Your task to perform on an android device: make emails show in primary in the gmail app Image 0: 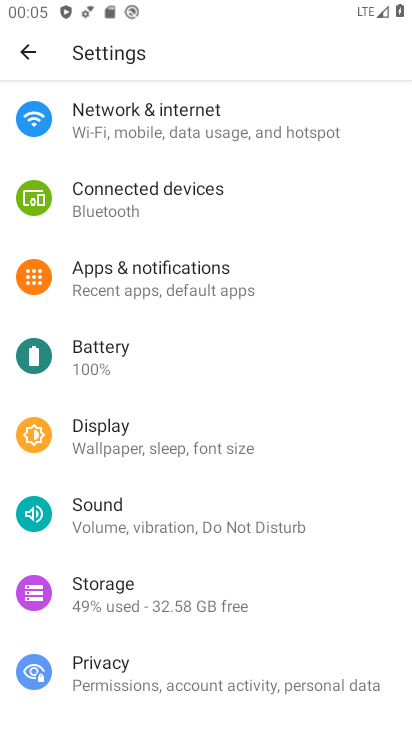
Step 0: press back button
Your task to perform on an android device: make emails show in primary in the gmail app Image 1: 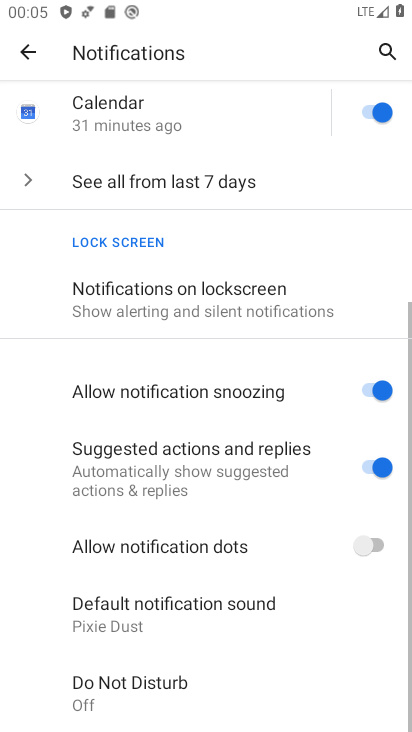
Step 1: press back button
Your task to perform on an android device: make emails show in primary in the gmail app Image 2: 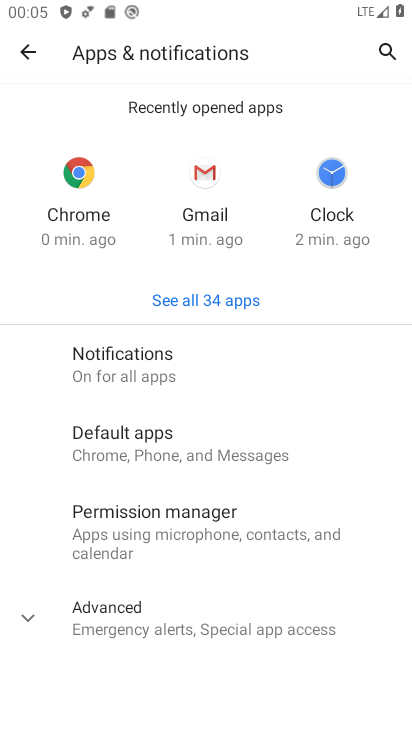
Step 2: press back button
Your task to perform on an android device: make emails show in primary in the gmail app Image 3: 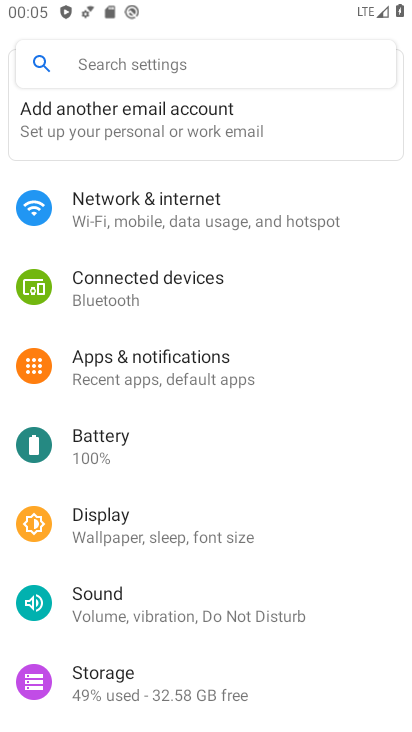
Step 3: press back button
Your task to perform on an android device: make emails show in primary in the gmail app Image 4: 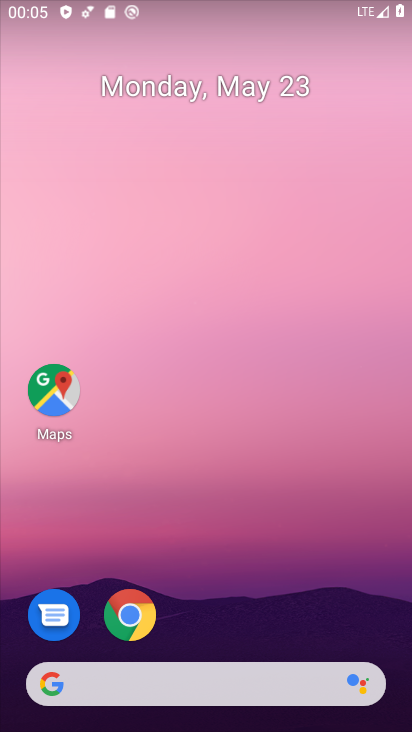
Step 4: drag from (248, 606) to (318, 110)
Your task to perform on an android device: make emails show in primary in the gmail app Image 5: 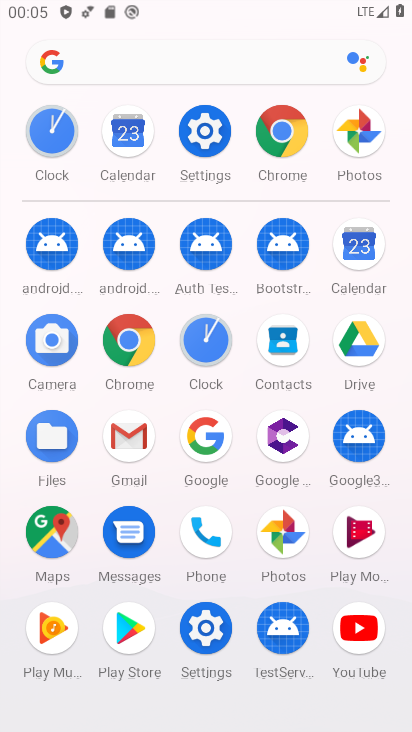
Step 5: click (134, 434)
Your task to perform on an android device: make emails show in primary in the gmail app Image 6: 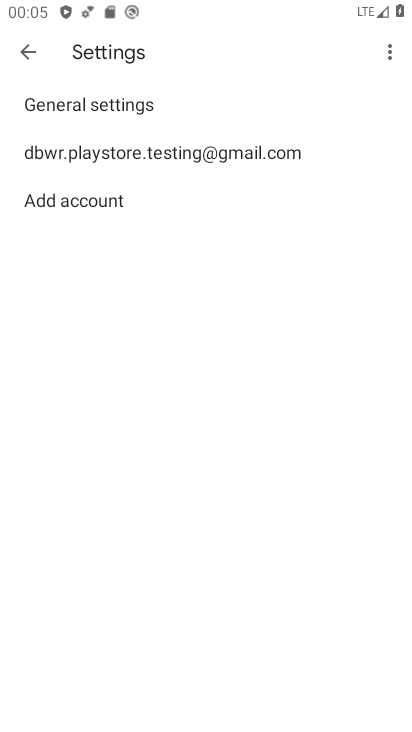
Step 6: click (106, 150)
Your task to perform on an android device: make emails show in primary in the gmail app Image 7: 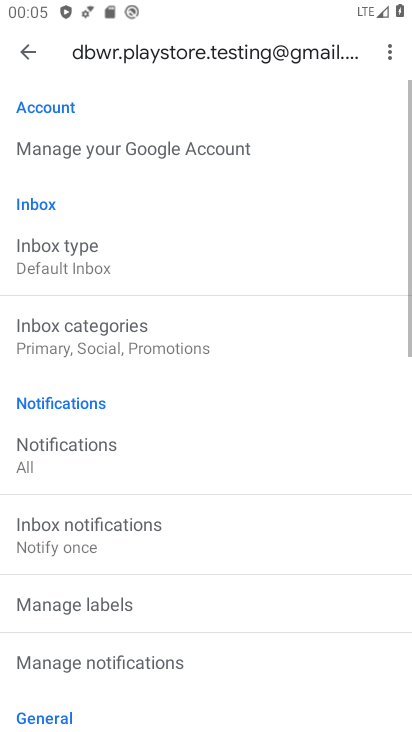
Step 7: click (102, 338)
Your task to perform on an android device: make emails show in primary in the gmail app Image 8: 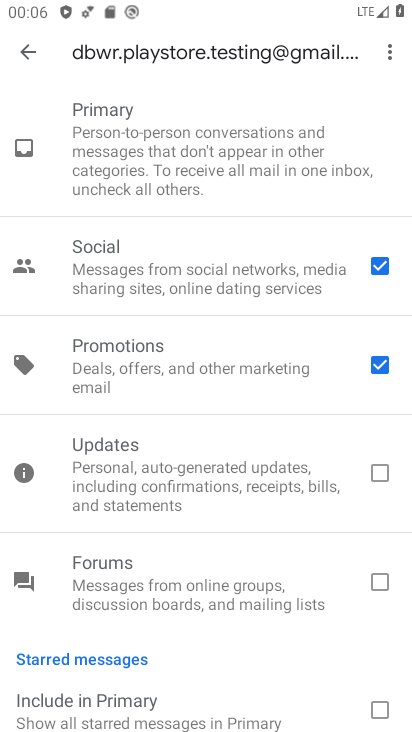
Step 8: drag from (161, 663) to (202, 354)
Your task to perform on an android device: make emails show in primary in the gmail app Image 9: 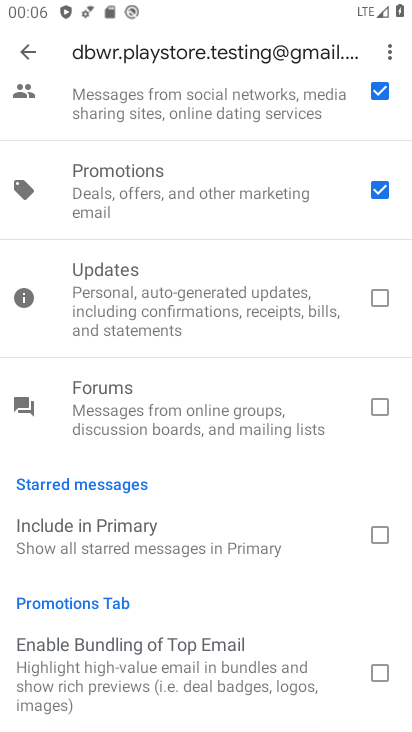
Step 9: click (386, 540)
Your task to perform on an android device: make emails show in primary in the gmail app Image 10: 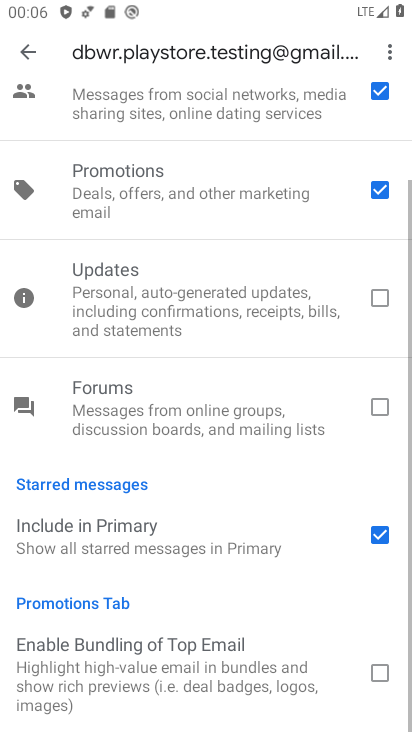
Step 10: task complete